Your task to perform on an android device: change notification settings in the gmail app Image 0: 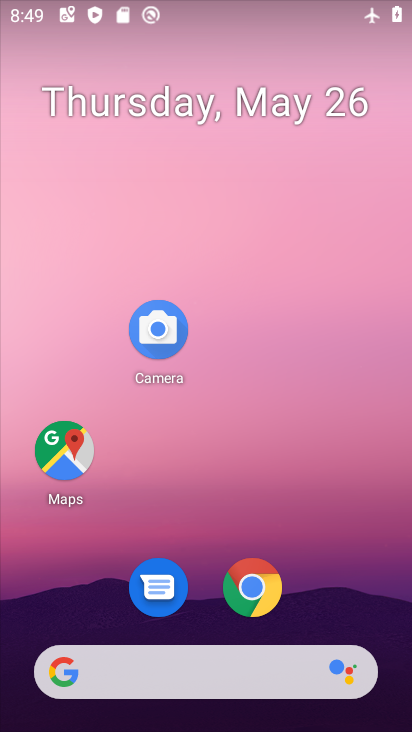
Step 0: drag from (207, 621) to (229, 175)
Your task to perform on an android device: change notification settings in the gmail app Image 1: 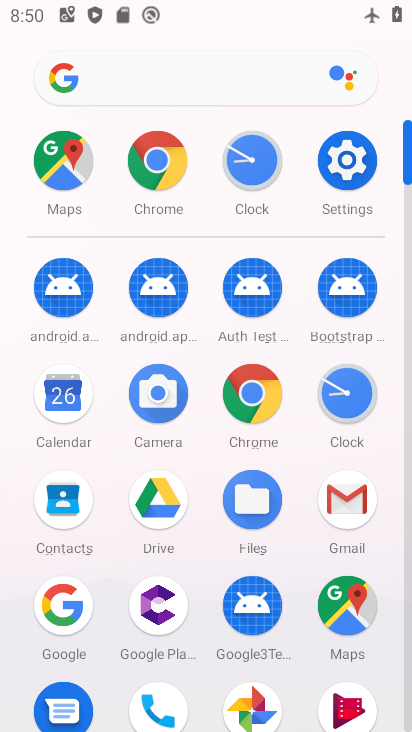
Step 1: click (352, 503)
Your task to perform on an android device: change notification settings in the gmail app Image 2: 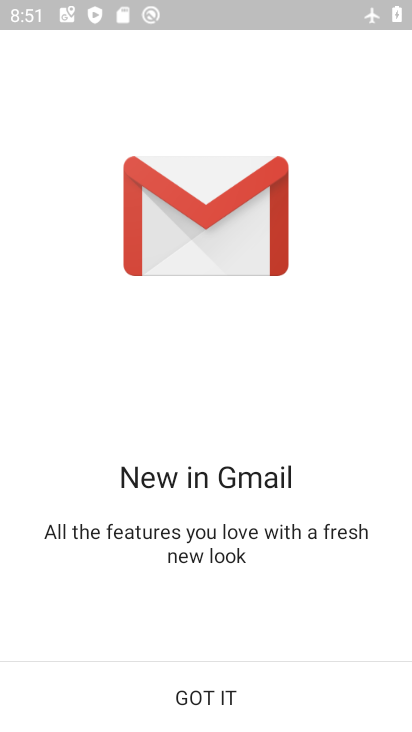
Step 2: click (320, 668)
Your task to perform on an android device: change notification settings in the gmail app Image 3: 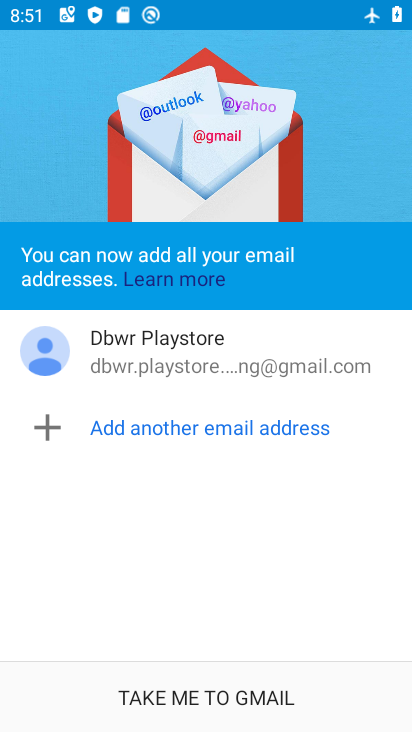
Step 3: click (124, 685)
Your task to perform on an android device: change notification settings in the gmail app Image 4: 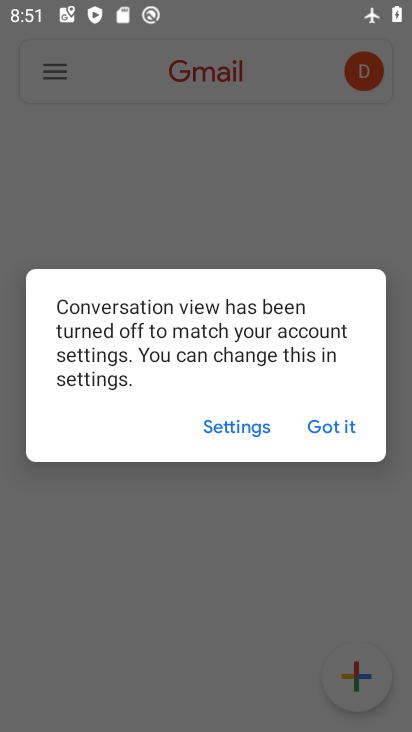
Step 4: click (322, 422)
Your task to perform on an android device: change notification settings in the gmail app Image 5: 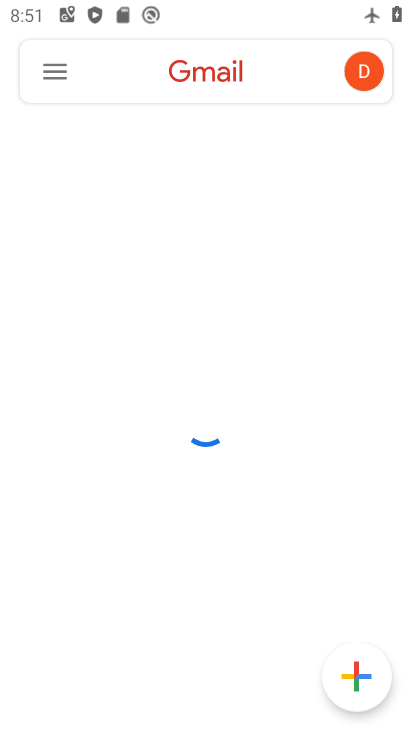
Step 5: click (54, 68)
Your task to perform on an android device: change notification settings in the gmail app Image 6: 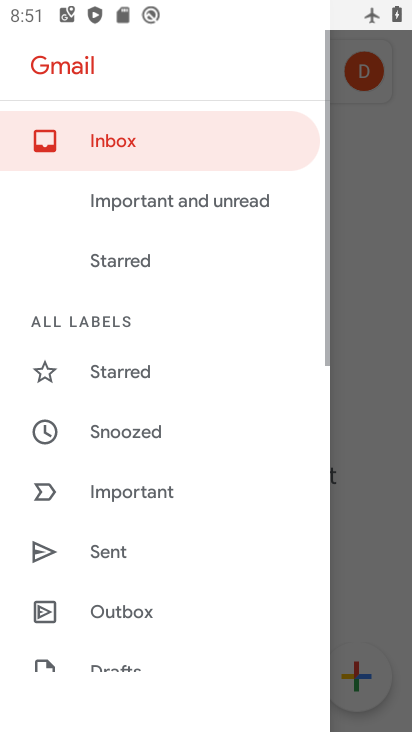
Step 6: click (155, 332)
Your task to perform on an android device: change notification settings in the gmail app Image 7: 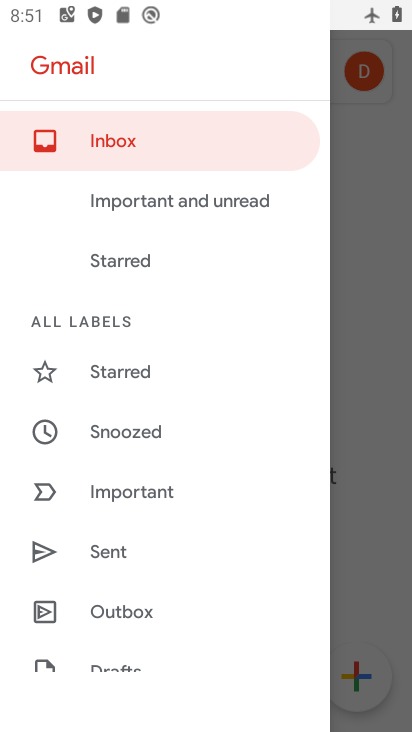
Step 7: drag from (208, 590) to (198, 281)
Your task to perform on an android device: change notification settings in the gmail app Image 8: 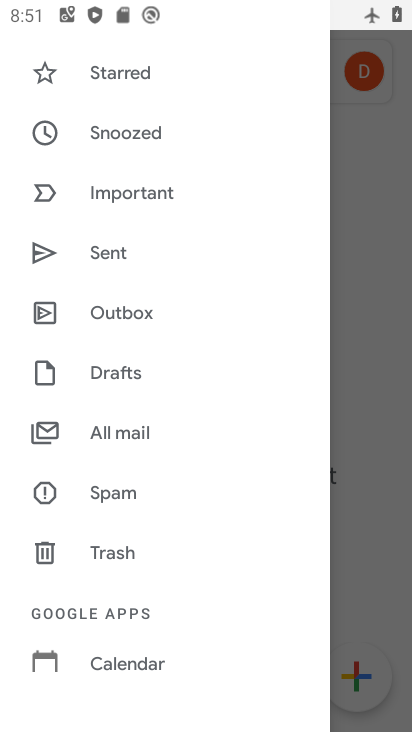
Step 8: drag from (180, 578) to (198, 292)
Your task to perform on an android device: change notification settings in the gmail app Image 9: 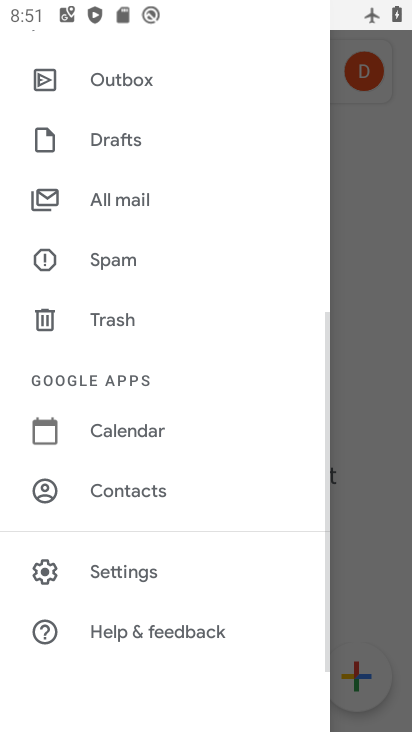
Step 9: click (163, 577)
Your task to perform on an android device: change notification settings in the gmail app Image 10: 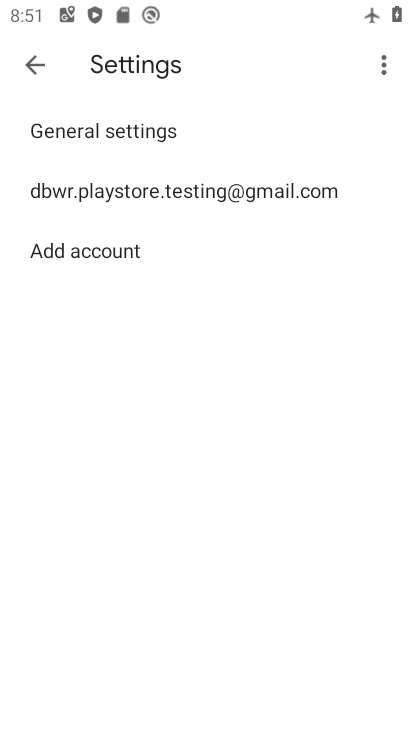
Step 10: click (211, 174)
Your task to perform on an android device: change notification settings in the gmail app Image 11: 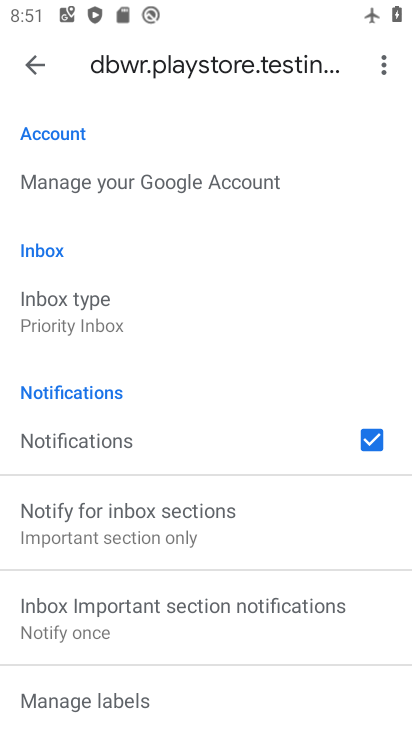
Step 11: drag from (151, 601) to (167, 307)
Your task to perform on an android device: change notification settings in the gmail app Image 12: 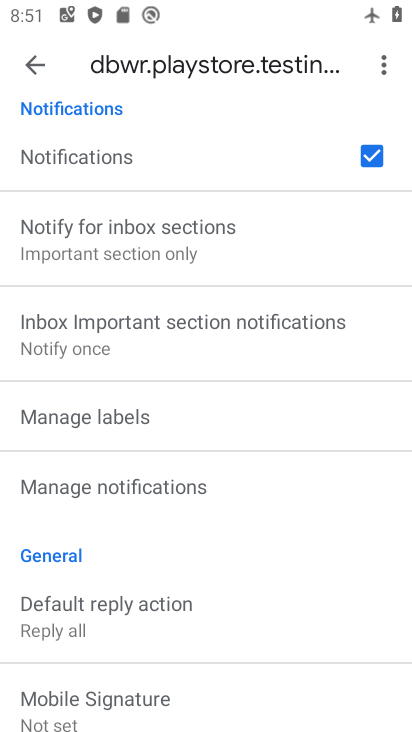
Step 12: click (124, 498)
Your task to perform on an android device: change notification settings in the gmail app Image 13: 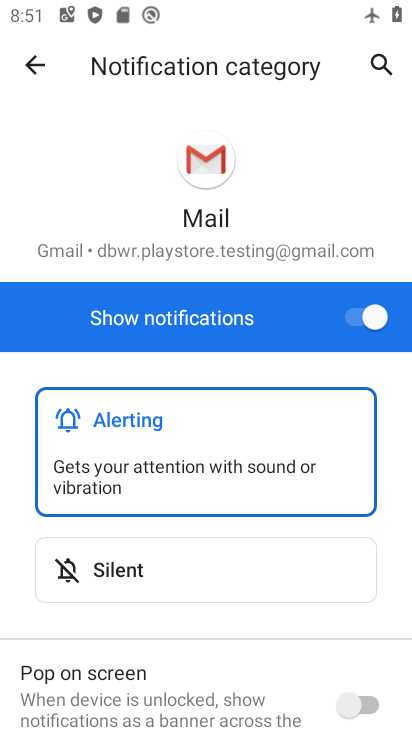
Step 13: click (347, 324)
Your task to perform on an android device: change notification settings in the gmail app Image 14: 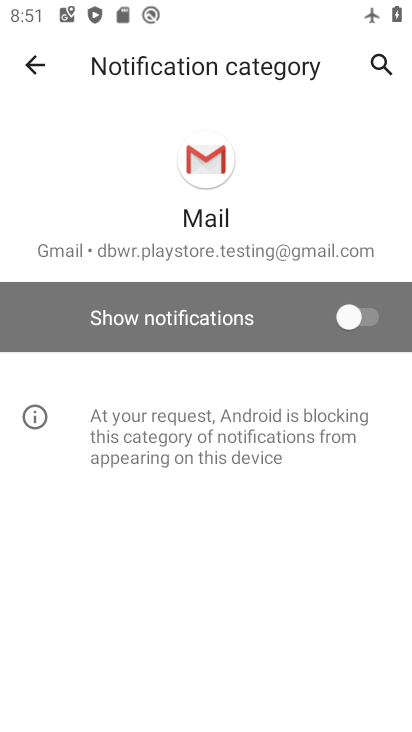
Step 14: task complete